Your task to perform on an android device: Open calendar and show me the second week of next month Image 0: 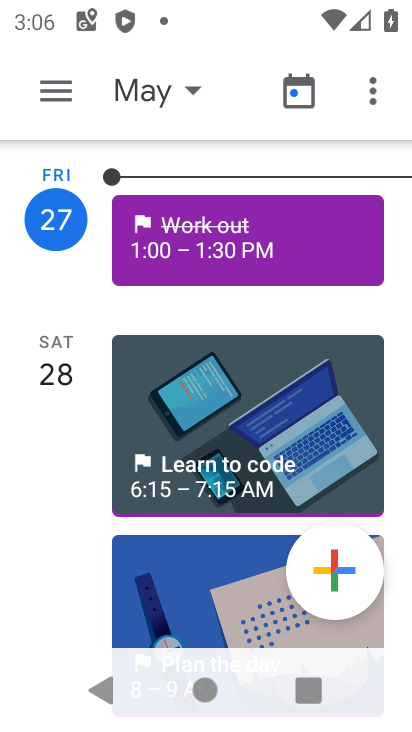
Step 0: press home button
Your task to perform on an android device: Open calendar and show me the second week of next month Image 1: 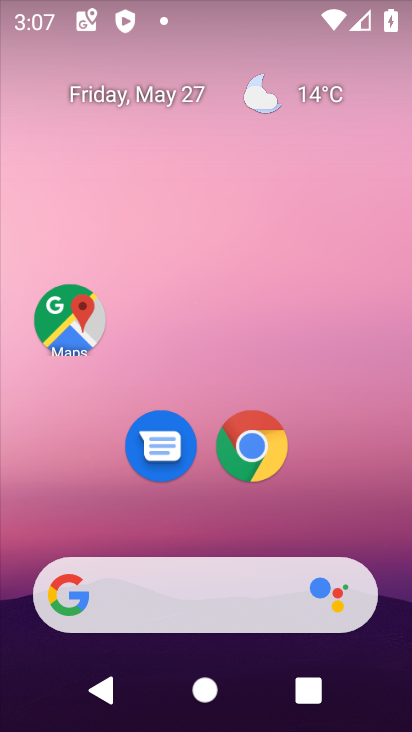
Step 1: drag from (206, 599) to (282, 208)
Your task to perform on an android device: Open calendar and show me the second week of next month Image 2: 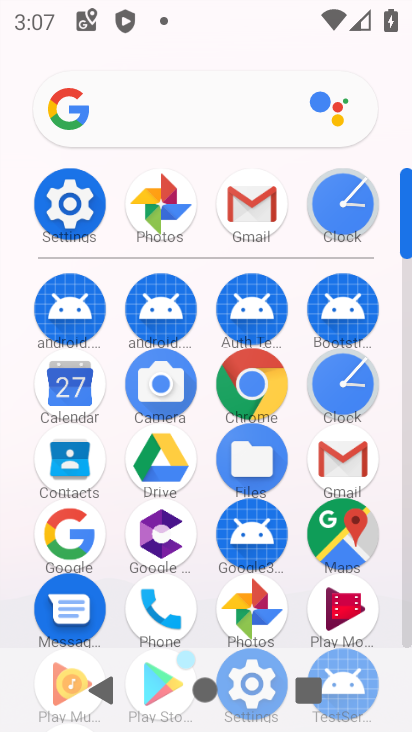
Step 2: click (64, 400)
Your task to perform on an android device: Open calendar and show me the second week of next month Image 3: 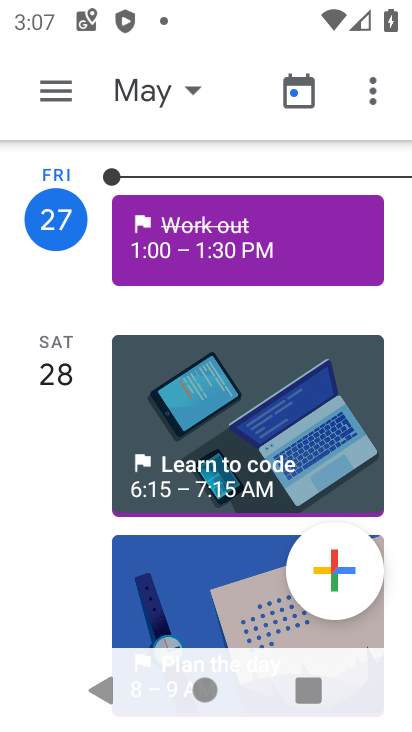
Step 3: click (139, 92)
Your task to perform on an android device: Open calendar and show me the second week of next month Image 4: 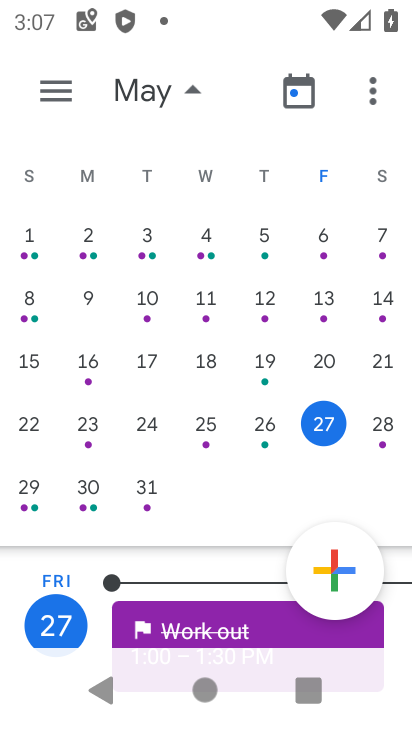
Step 4: drag from (339, 332) to (54, 208)
Your task to perform on an android device: Open calendar and show me the second week of next month Image 5: 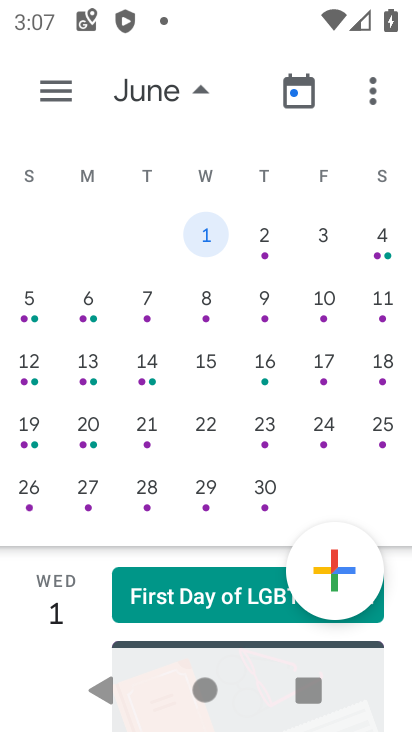
Step 5: click (31, 301)
Your task to perform on an android device: Open calendar and show me the second week of next month Image 6: 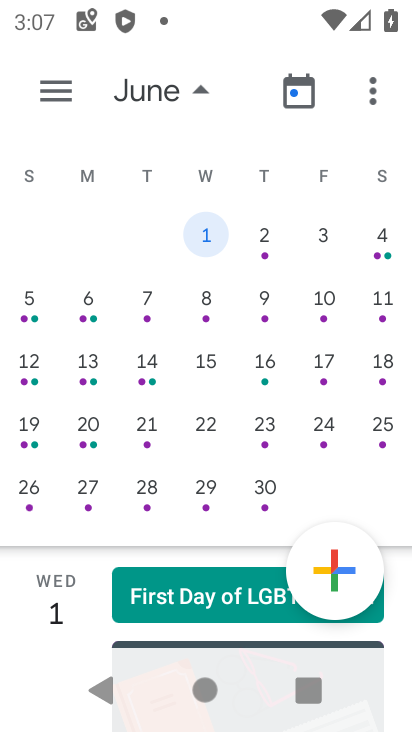
Step 6: click (30, 301)
Your task to perform on an android device: Open calendar and show me the second week of next month Image 7: 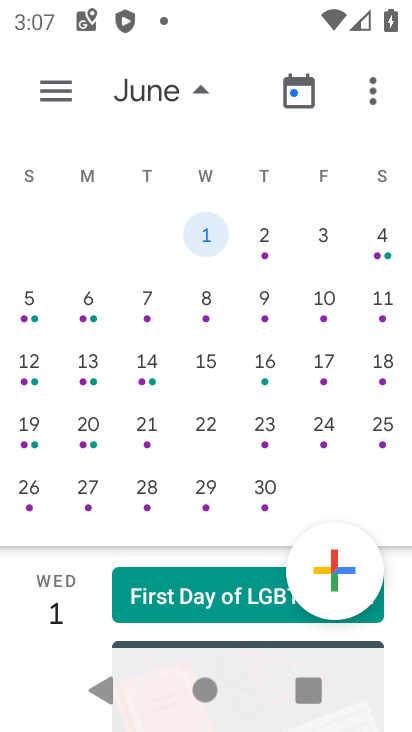
Step 7: click (30, 297)
Your task to perform on an android device: Open calendar and show me the second week of next month Image 8: 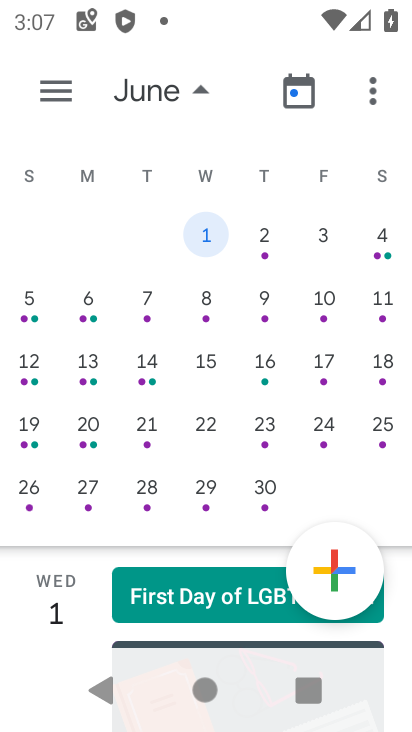
Step 8: click (31, 294)
Your task to perform on an android device: Open calendar and show me the second week of next month Image 9: 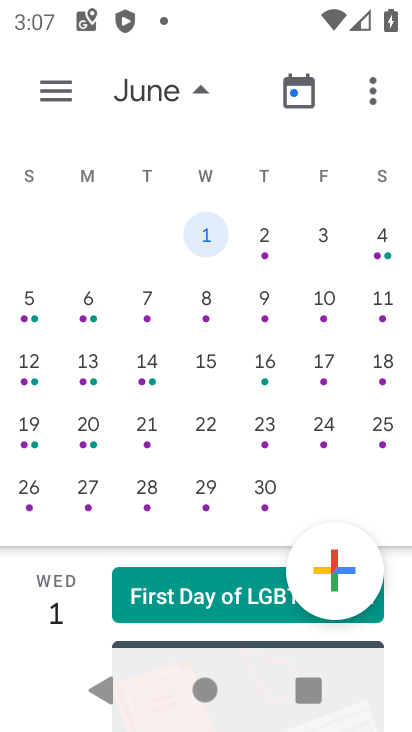
Step 9: click (31, 312)
Your task to perform on an android device: Open calendar and show me the second week of next month Image 10: 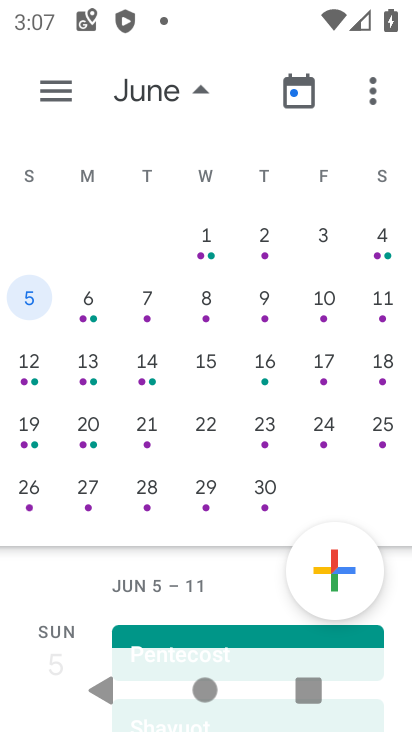
Step 10: click (44, 77)
Your task to perform on an android device: Open calendar and show me the second week of next month Image 11: 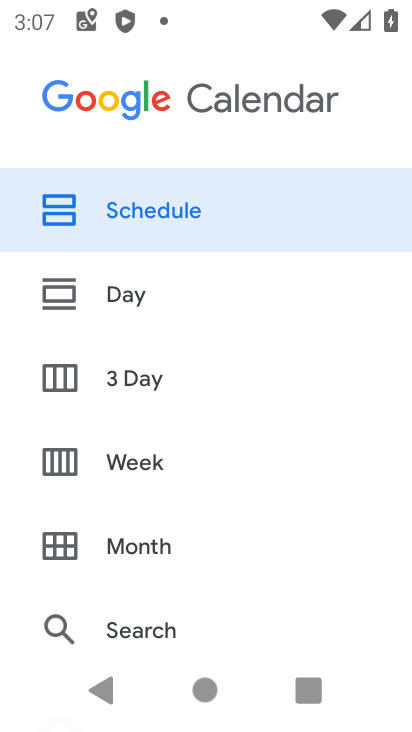
Step 11: click (141, 463)
Your task to perform on an android device: Open calendar and show me the second week of next month Image 12: 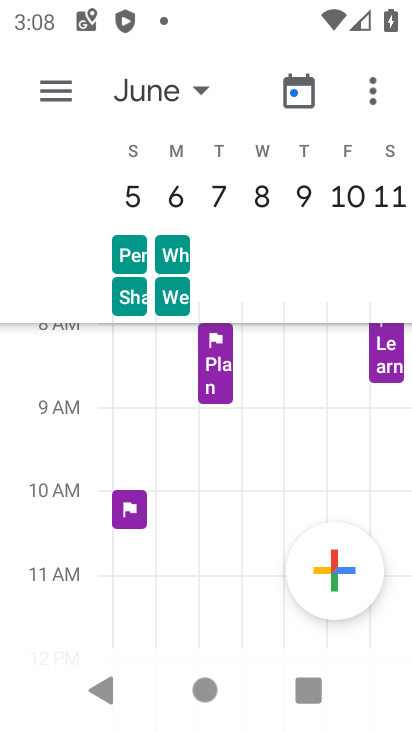
Step 12: task complete